Your task to perform on an android device: change the clock display to digital Image 0: 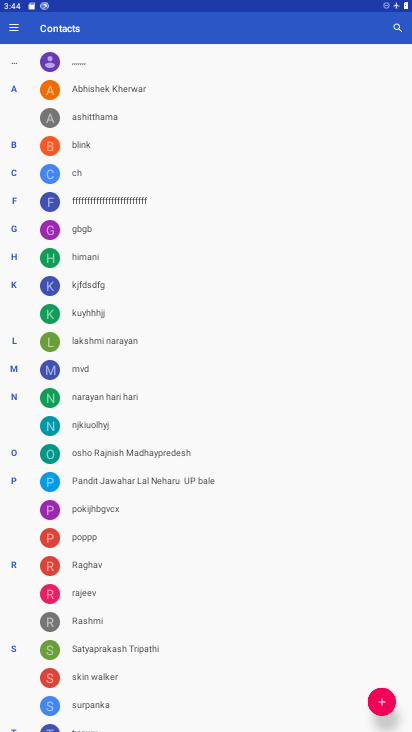
Step 0: press home button
Your task to perform on an android device: change the clock display to digital Image 1: 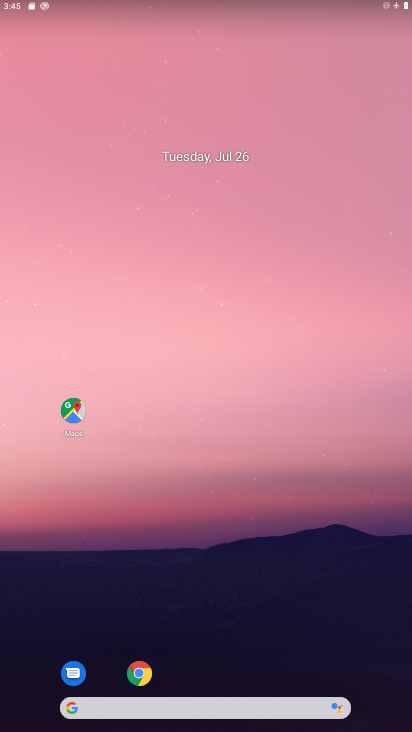
Step 1: drag from (239, 662) to (217, 24)
Your task to perform on an android device: change the clock display to digital Image 2: 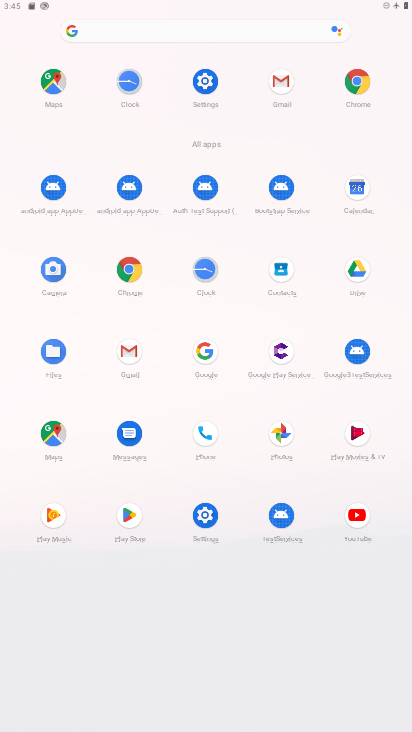
Step 2: click (126, 85)
Your task to perform on an android device: change the clock display to digital Image 3: 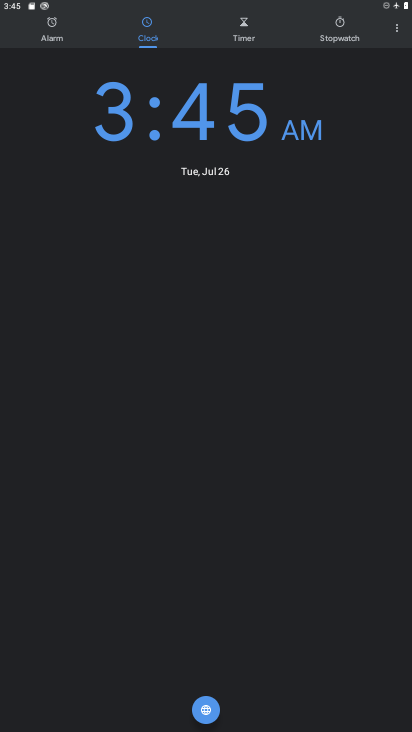
Step 3: click (404, 27)
Your task to perform on an android device: change the clock display to digital Image 4: 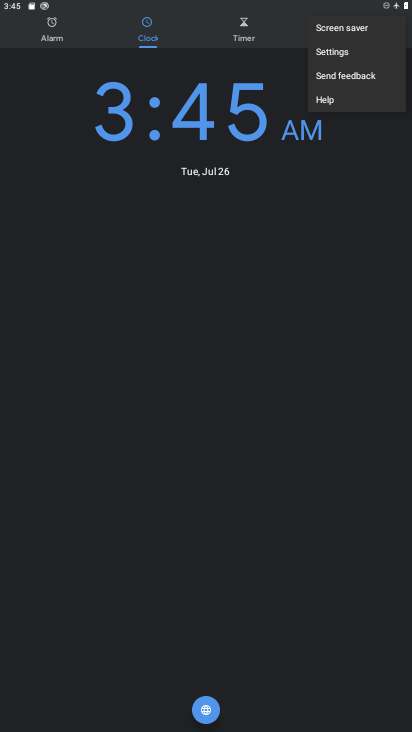
Step 4: click (332, 56)
Your task to perform on an android device: change the clock display to digital Image 5: 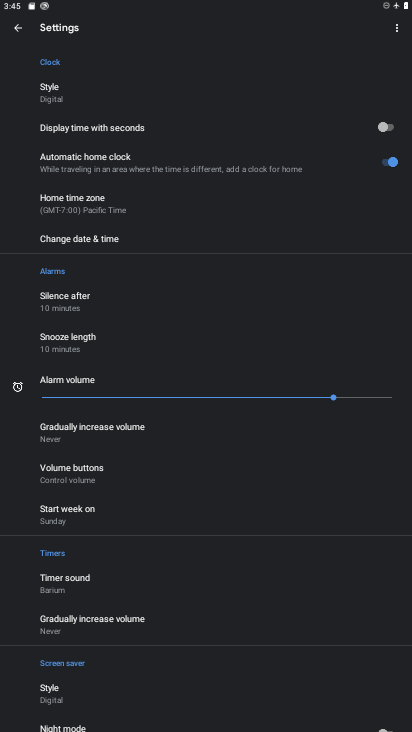
Step 5: task complete